Your task to perform on an android device: Show me popular games on the Play Store Image 0: 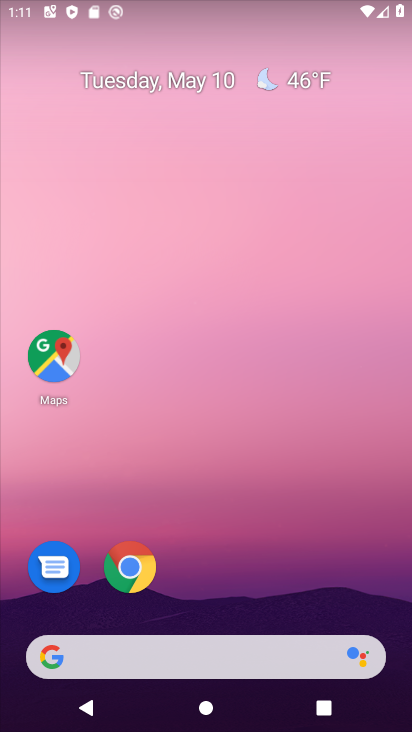
Step 0: drag from (280, 557) to (222, 96)
Your task to perform on an android device: Show me popular games on the Play Store Image 1: 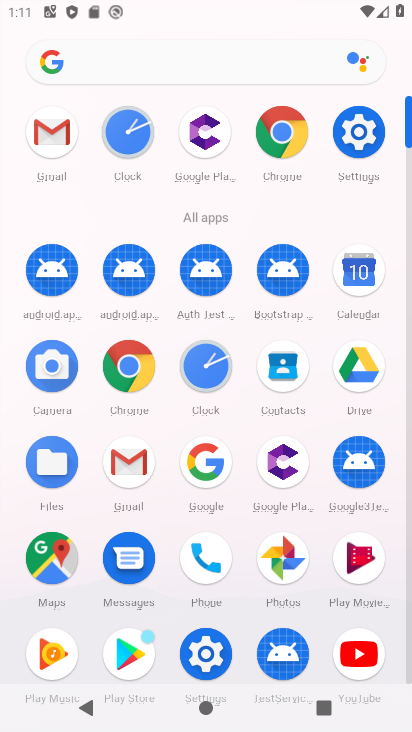
Step 1: click (150, 654)
Your task to perform on an android device: Show me popular games on the Play Store Image 2: 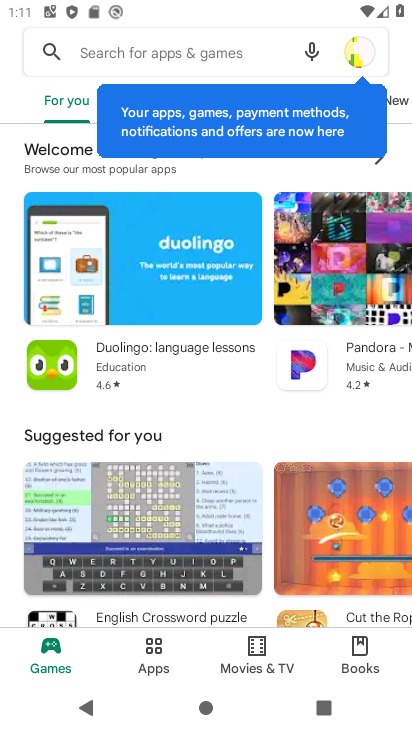
Step 2: drag from (273, 521) to (214, 280)
Your task to perform on an android device: Show me popular games on the Play Store Image 3: 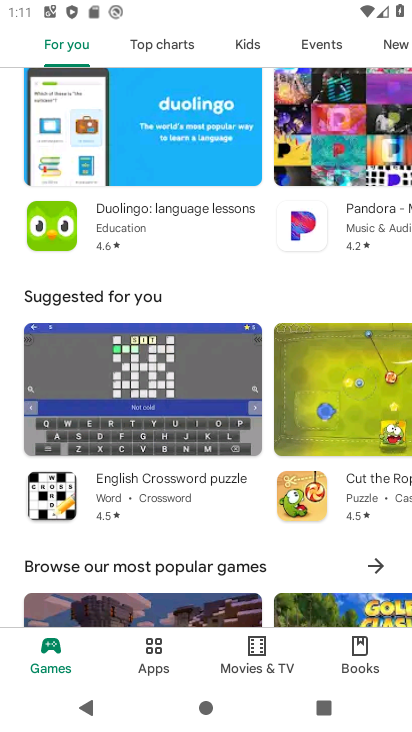
Step 3: click (212, 574)
Your task to perform on an android device: Show me popular games on the Play Store Image 4: 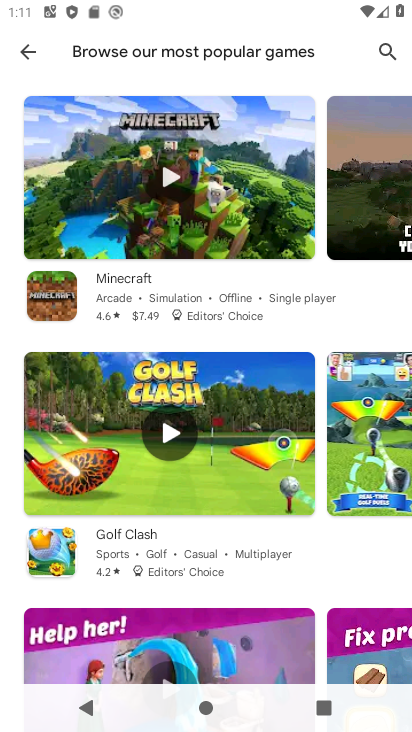
Step 4: task complete